Your task to perform on an android device: Check the weather Image 0: 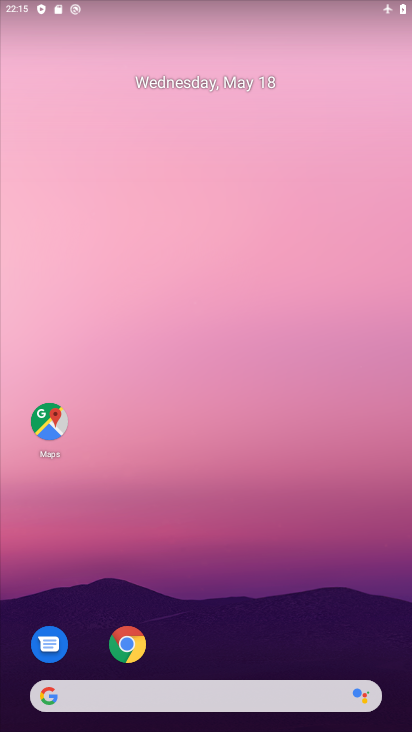
Step 0: drag from (217, 655) to (311, 111)
Your task to perform on an android device: Check the weather Image 1: 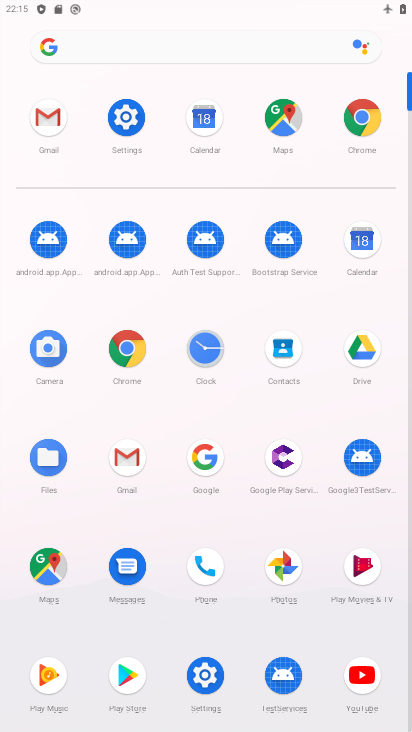
Step 1: click (129, 347)
Your task to perform on an android device: Check the weather Image 2: 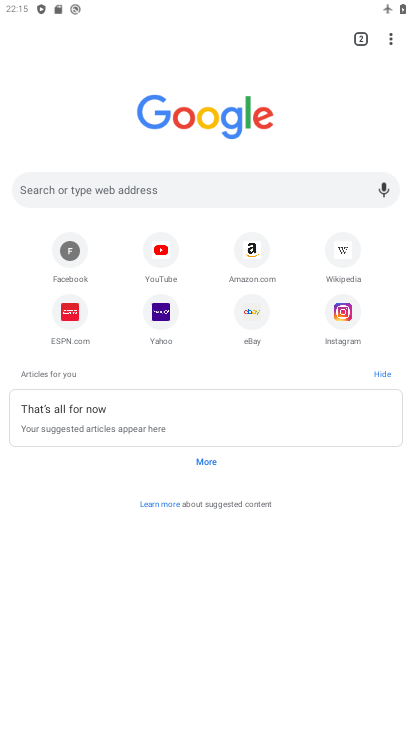
Step 2: click (166, 186)
Your task to perform on an android device: Check the weather Image 3: 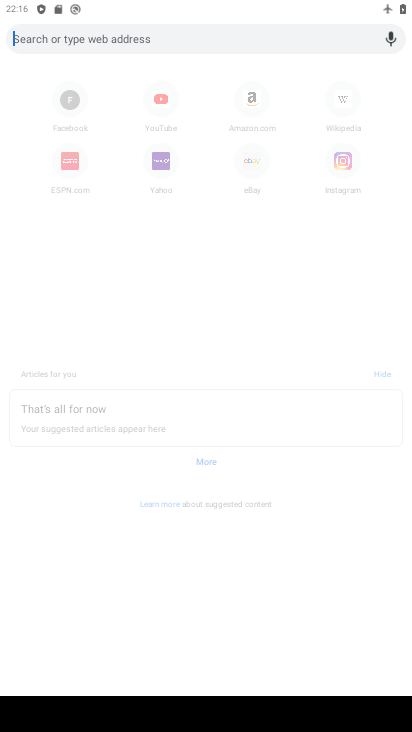
Step 3: type "weather"
Your task to perform on an android device: Check the weather Image 4: 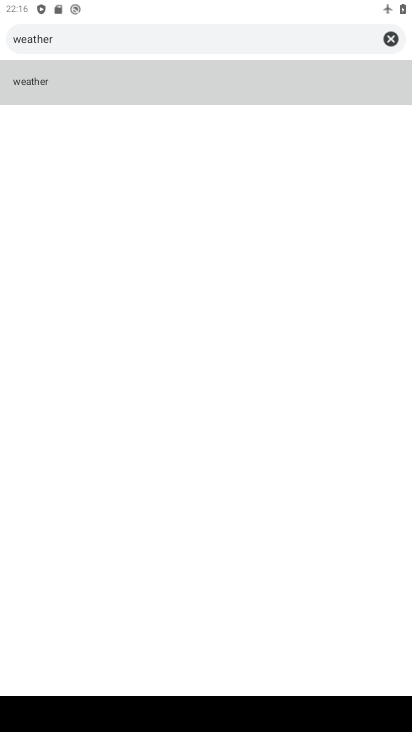
Step 4: click (58, 79)
Your task to perform on an android device: Check the weather Image 5: 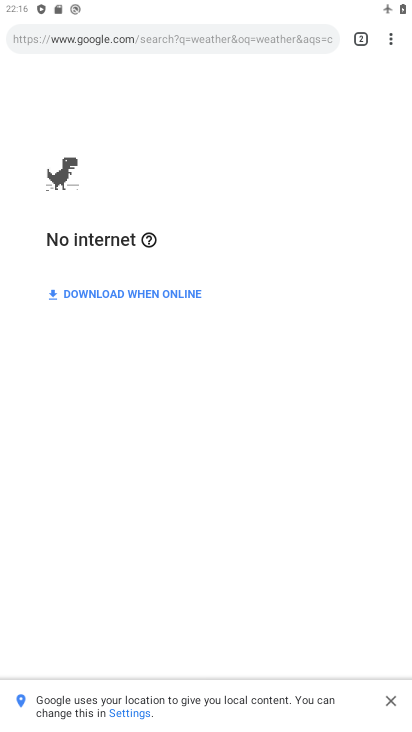
Step 5: task complete